Your task to perform on an android device: Go to eBay Image 0: 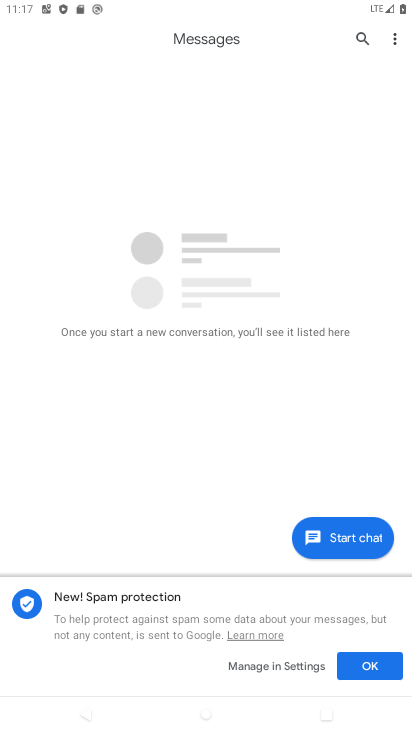
Step 0: press home button
Your task to perform on an android device: Go to eBay Image 1: 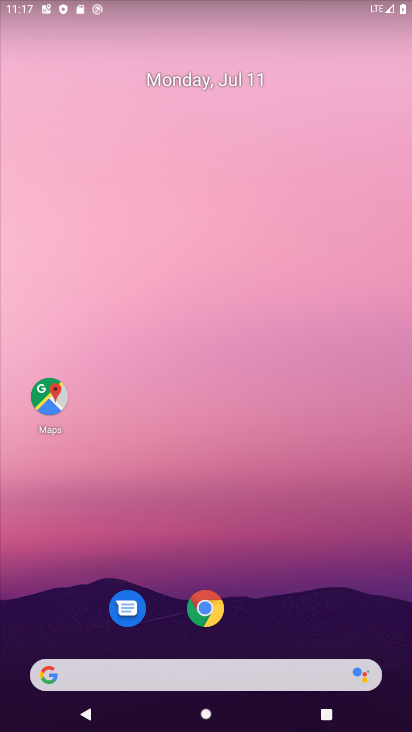
Step 1: click (130, 662)
Your task to perform on an android device: Go to eBay Image 2: 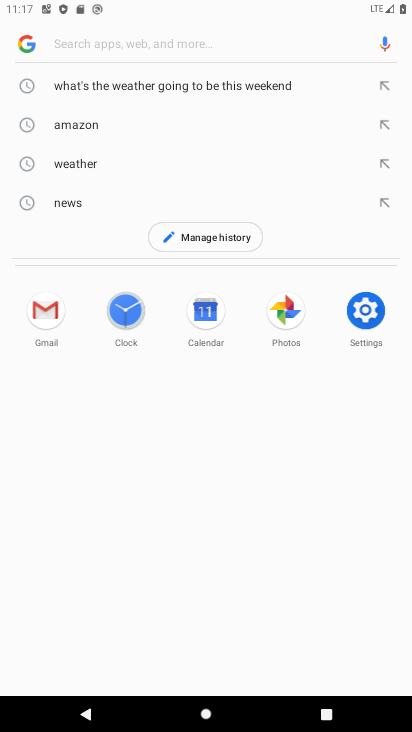
Step 2: type "eBay"
Your task to perform on an android device: Go to eBay Image 3: 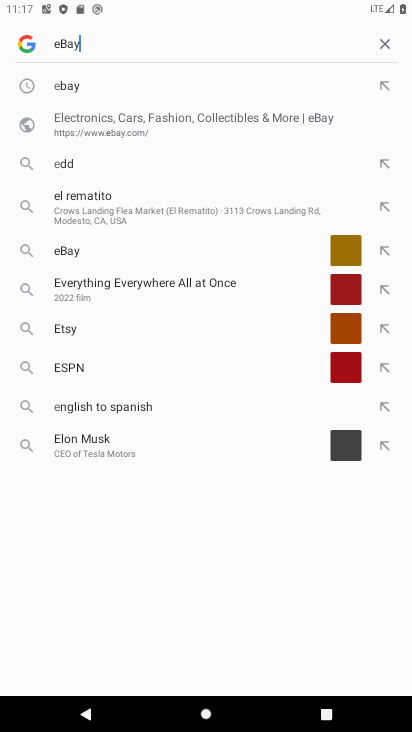
Step 3: type ""
Your task to perform on an android device: Go to eBay Image 4: 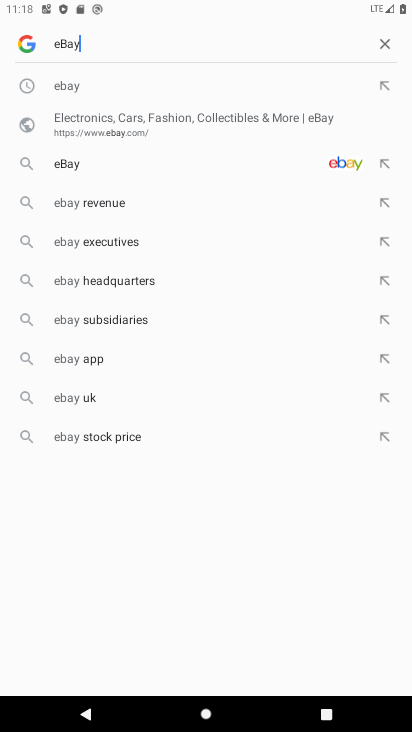
Step 4: click (77, 92)
Your task to perform on an android device: Go to eBay Image 5: 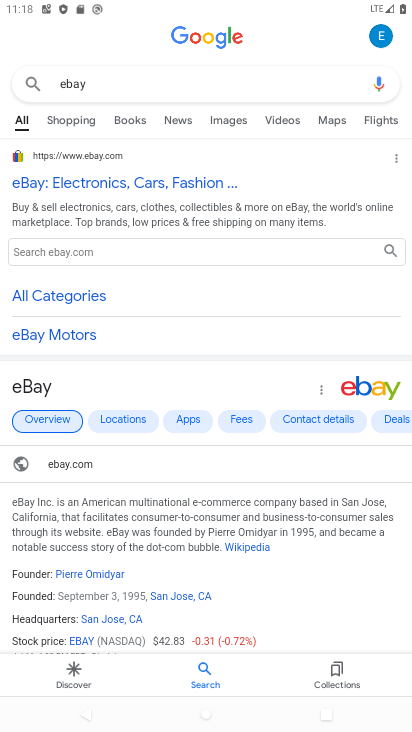
Step 5: task complete